Your task to perform on an android device: open a new tab in the chrome app Image 0: 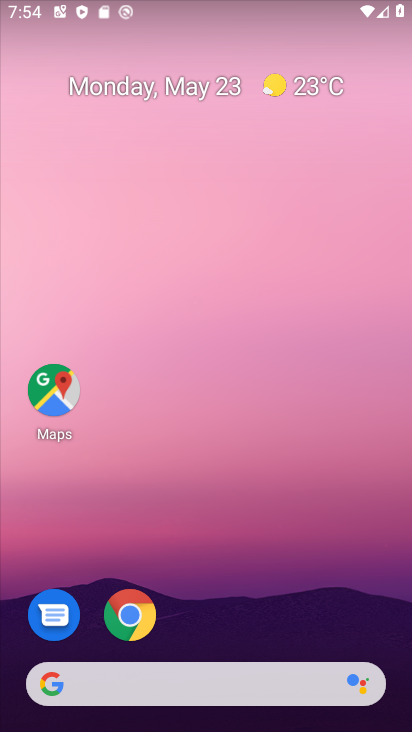
Step 0: click (130, 616)
Your task to perform on an android device: open a new tab in the chrome app Image 1: 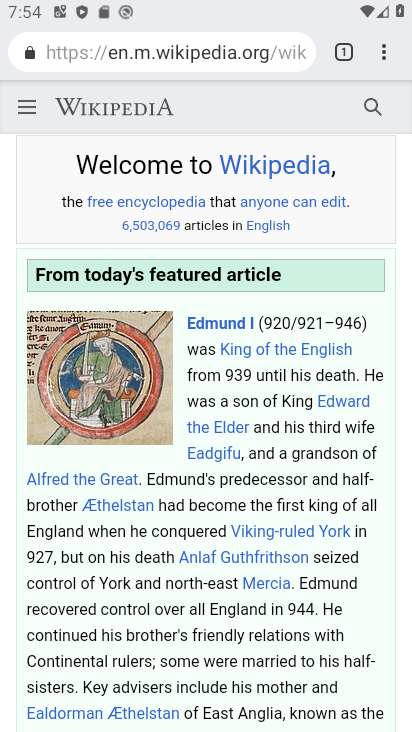
Step 1: click (384, 52)
Your task to perform on an android device: open a new tab in the chrome app Image 2: 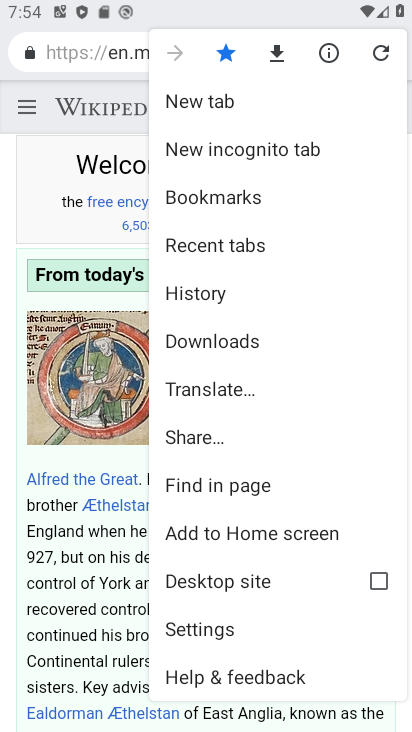
Step 2: click (234, 99)
Your task to perform on an android device: open a new tab in the chrome app Image 3: 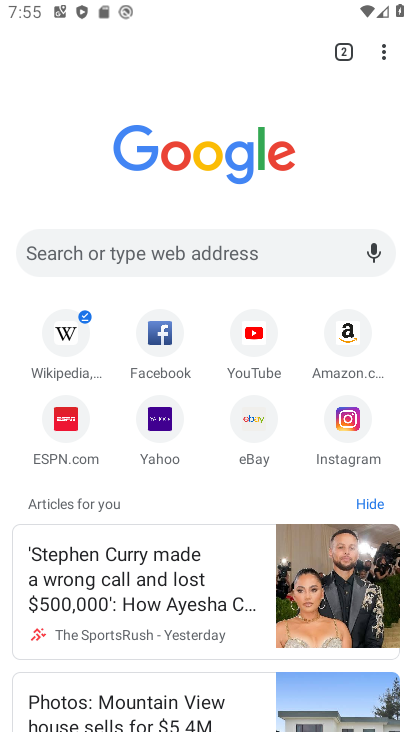
Step 3: task complete